Your task to perform on an android device: Open calendar and show me the second week of next month Image 0: 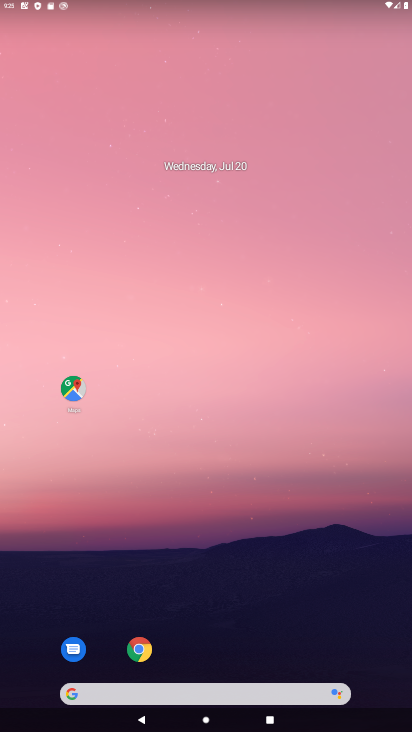
Step 0: task impossible